Your task to perform on an android device: Open Youtube and go to the subscriptions tab Image 0: 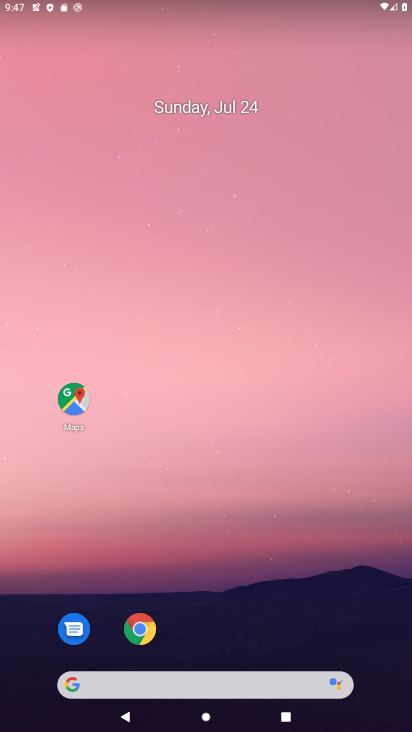
Step 0: drag from (182, 640) to (181, 95)
Your task to perform on an android device: Open Youtube and go to the subscriptions tab Image 1: 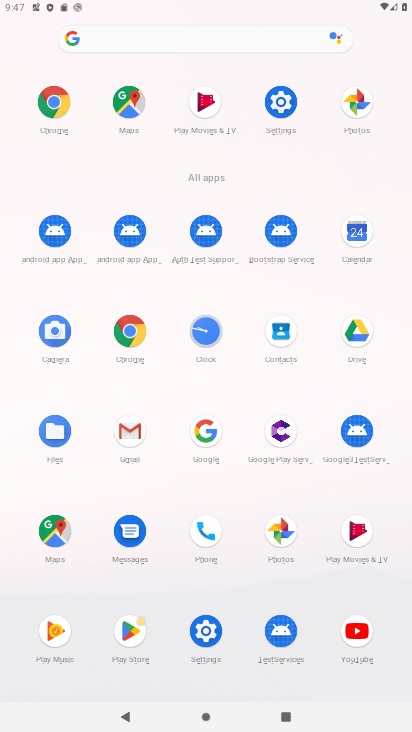
Step 1: click (362, 623)
Your task to perform on an android device: Open Youtube and go to the subscriptions tab Image 2: 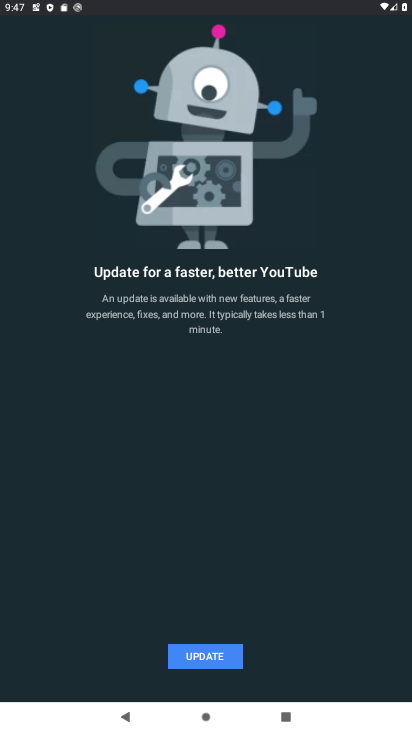
Step 2: click (169, 651)
Your task to perform on an android device: Open Youtube and go to the subscriptions tab Image 3: 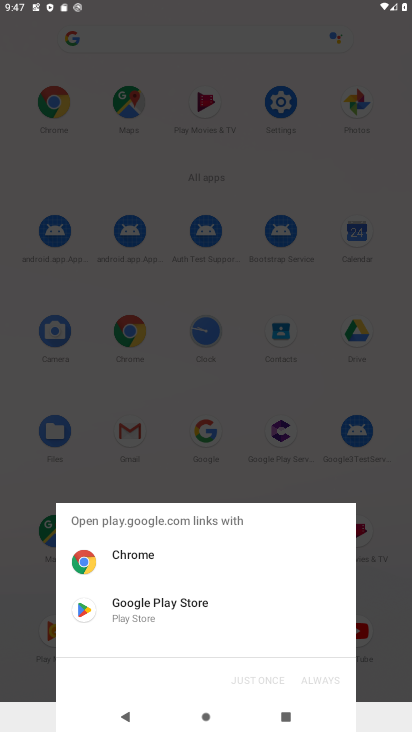
Step 3: click (176, 620)
Your task to perform on an android device: Open Youtube and go to the subscriptions tab Image 4: 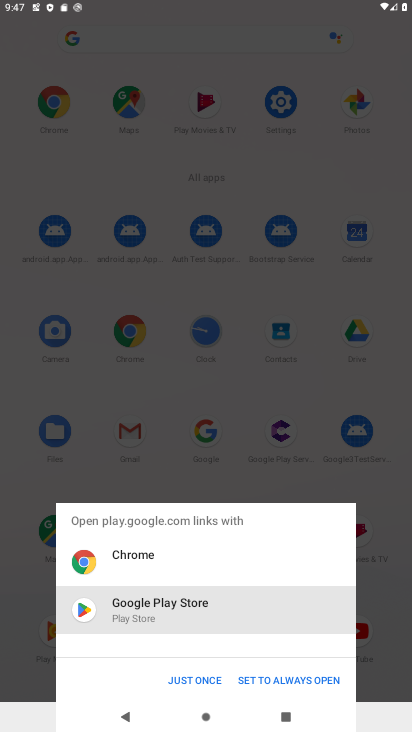
Step 4: click (174, 681)
Your task to perform on an android device: Open Youtube and go to the subscriptions tab Image 5: 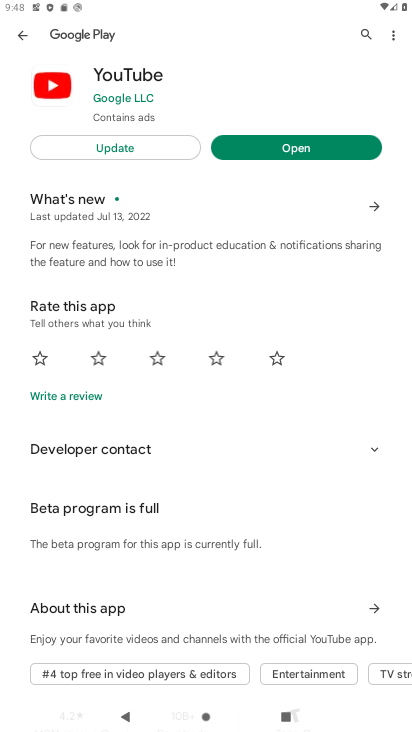
Step 5: click (93, 157)
Your task to perform on an android device: Open Youtube and go to the subscriptions tab Image 6: 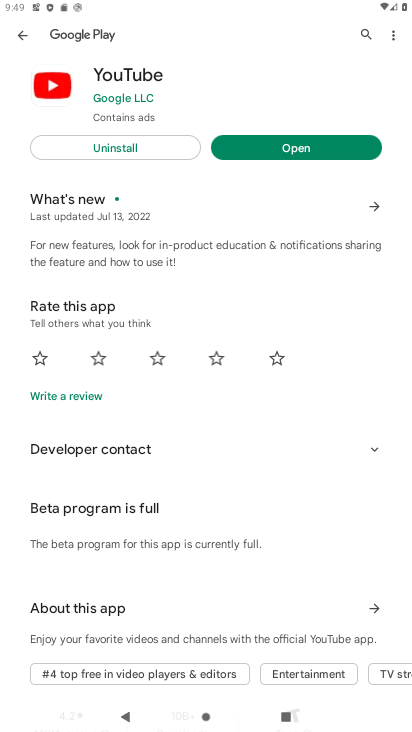
Step 6: click (245, 145)
Your task to perform on an android device: Open Youtube and go to the subscriptions tab Image 7: 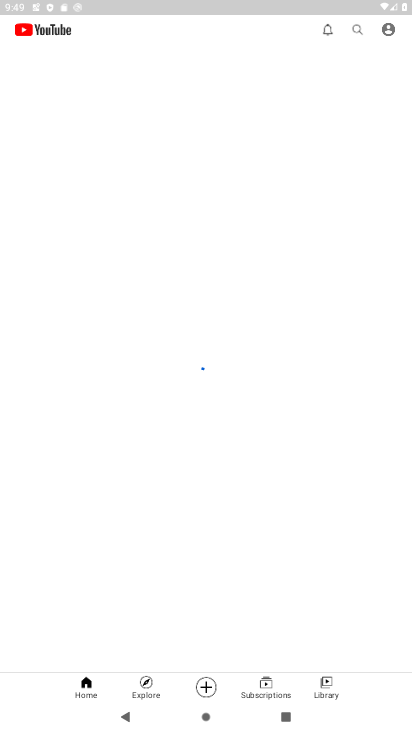
Step 7: click (240, 684)
Your task to perform on an android device: Open Youtube and go to the subscriptions tab Image 8: 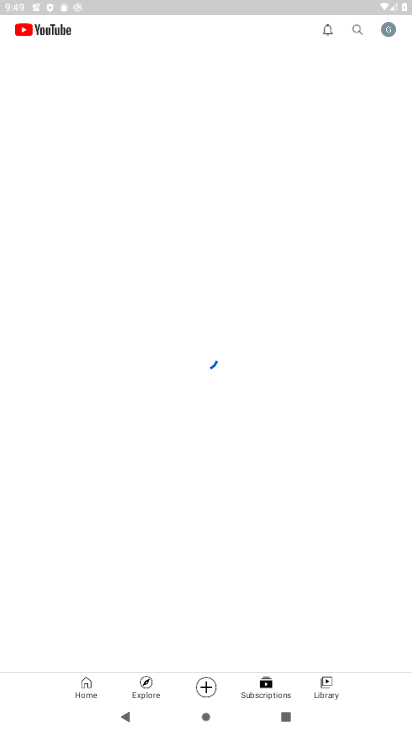
Step 8: task complete